Your task to perform on an android device: Clear all items from cart on bestbuy.com. Image 0: 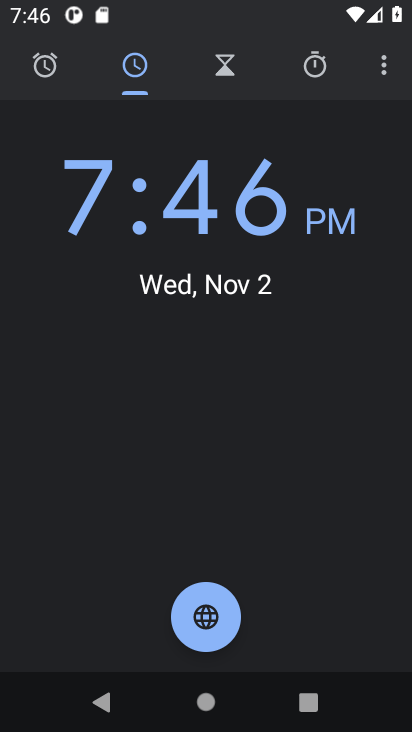
Step 0: press home button
Your task to perform on an android device: Clear all items from cart on bestbuy.com. Image 1: 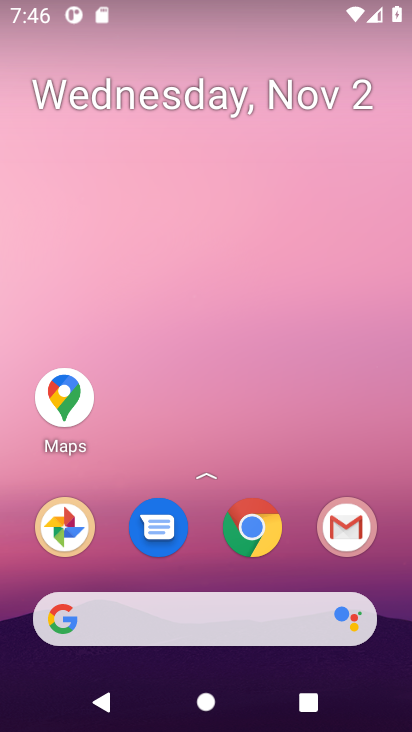
Step 1: click (256, 527)
Your task to perform on an android device: Clear all items from cart on bestbuy.com. Image 2: 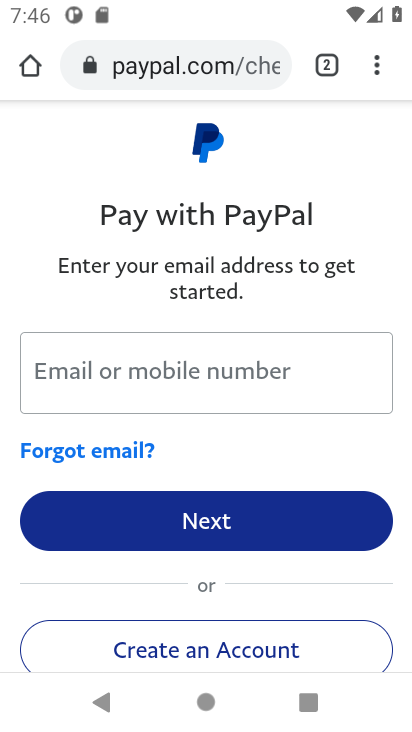
Step 2: click (162, 80)
Your task to perform on an android device: Clear all items from cart on bestbuy.com. Image 3: 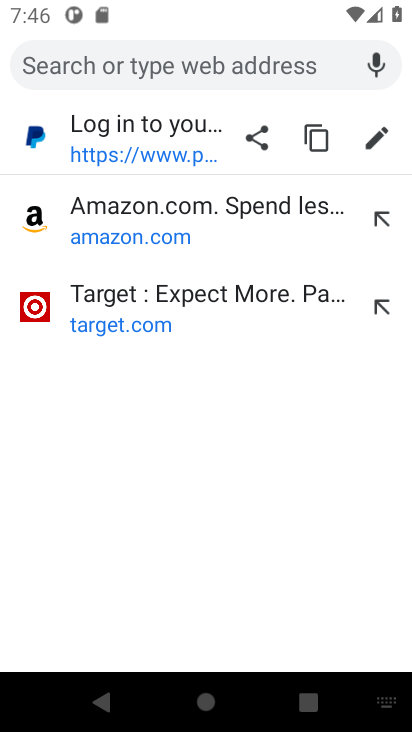
Step 3: type "bestbuy"
Your task to perform on an android device: Clear all items from cart on bestbuy.com. Image 4: 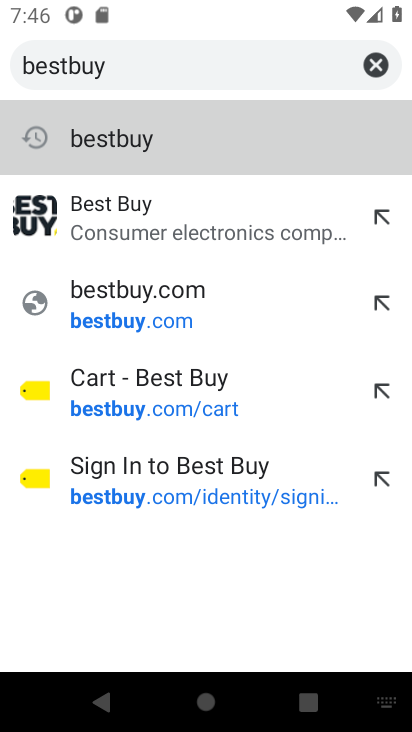
Step 4: click (69, 158)
Your task to perform on an android device: Clear all items from cart on bestbuy.com. Image 5: 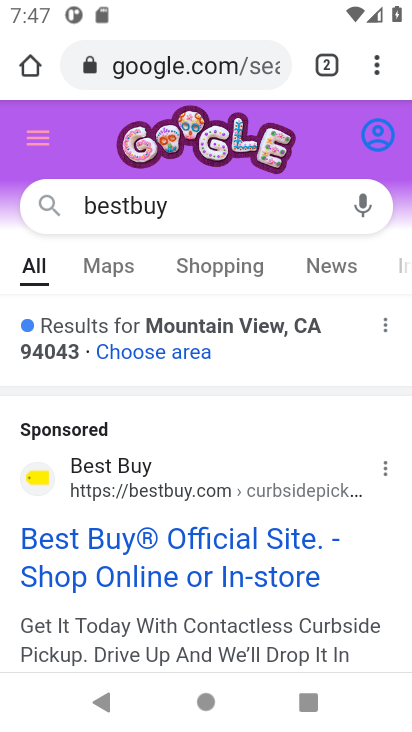
Step 5: click (179, 537)
Your task to perform on an android device: Clear all items from cart on bestbuy.com. Image 6: 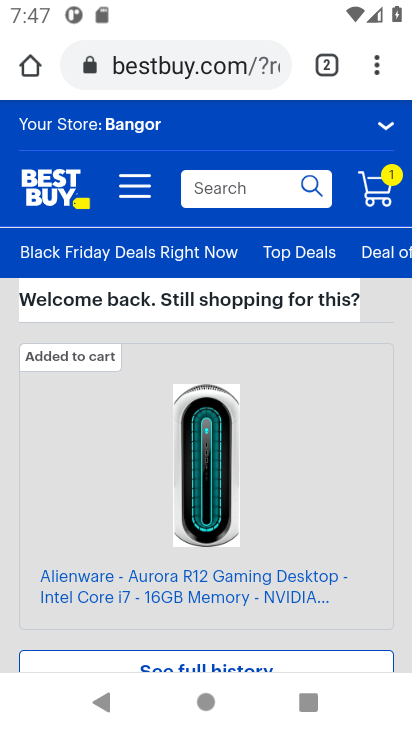
Step 6: drag from (347, 348) to (304, 218)
Your task to perform on an android device: Clear all items from cart on bestbuy.com. Image 7: 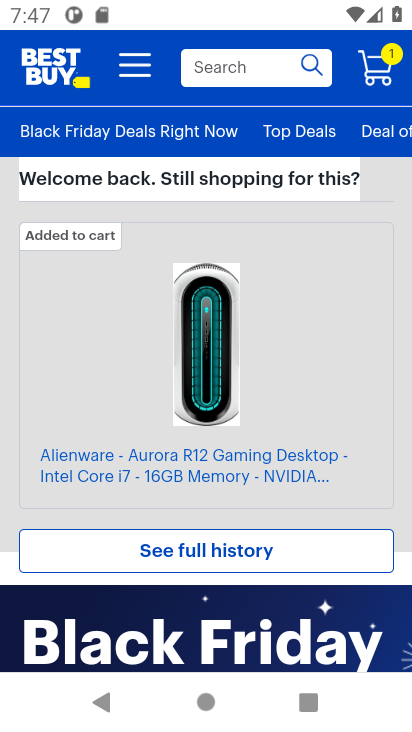
Step 7: click (379, 65)
Your task to perform on an android device: Clear all items from cart on bestbuy.com. Image 8: 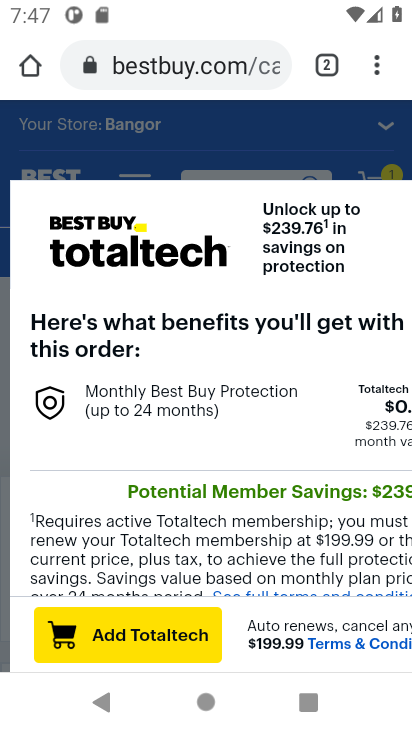
Step 8: click (356, 165)
Your task to perform on an android device: Clear all items from cart on bestbuy.com. Image 9: 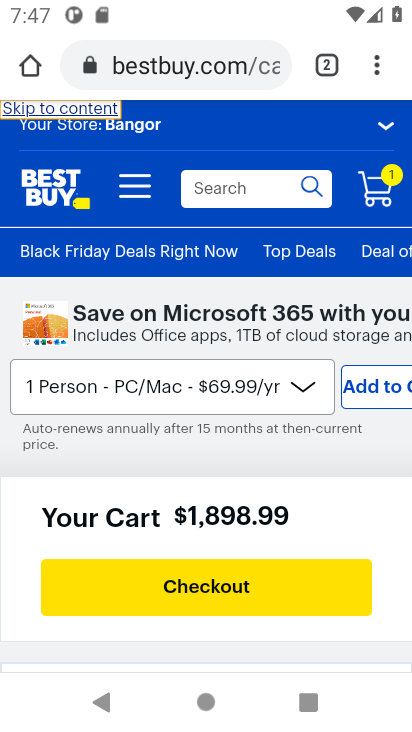
Step 9: drag from (305, 456) to (212, 133)
Your task to perform on an android device: Clear all items from cart on bestbuy.com. Image 10: 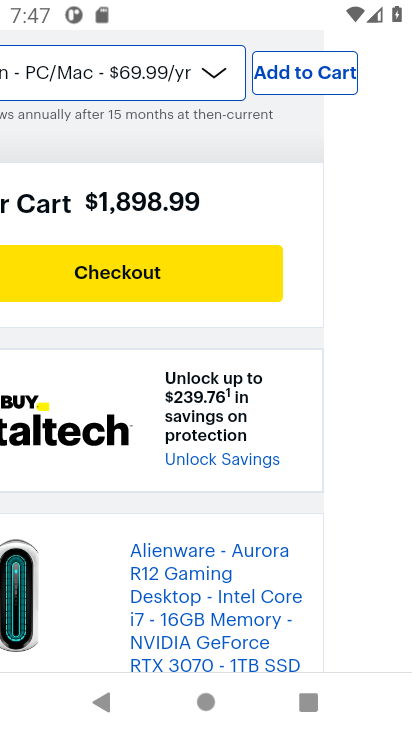
Step 10: drag from (354, 485) to (268, 53)
Your task to perform on an android device: Clear all items from cart on bestbuy.com. Image 11: 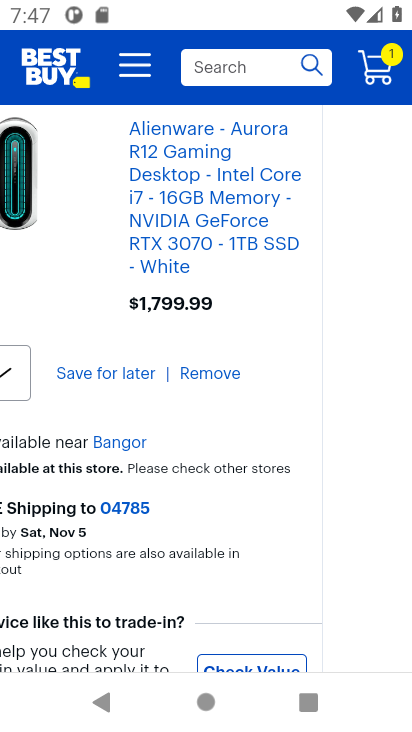
Step 11: click (209, 374)
Your task to perform on an android device: Clear all items from cart on bestbuy.com. Image 12: 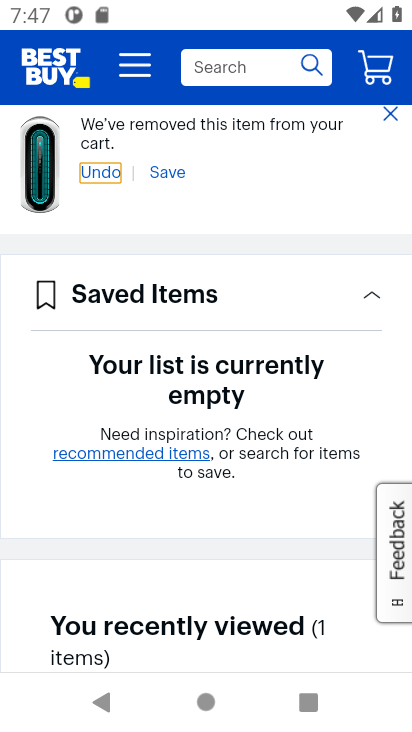
Step 12: task complete